Your task to perform on an android device: check battery use Image 0: 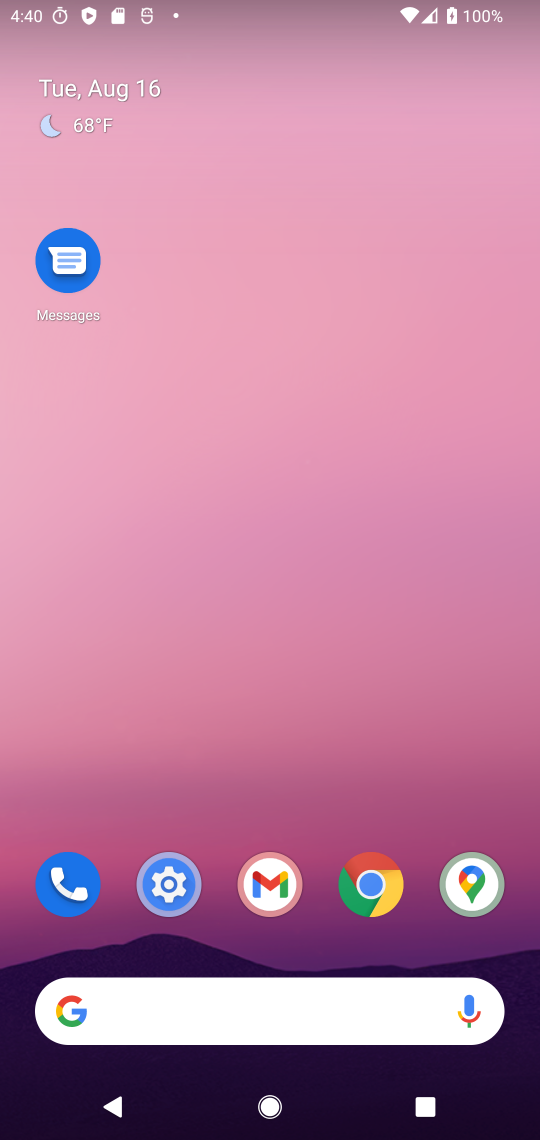
Step 0: click (162, 878)
Your task to perform on an android device: check battery use Image 1: 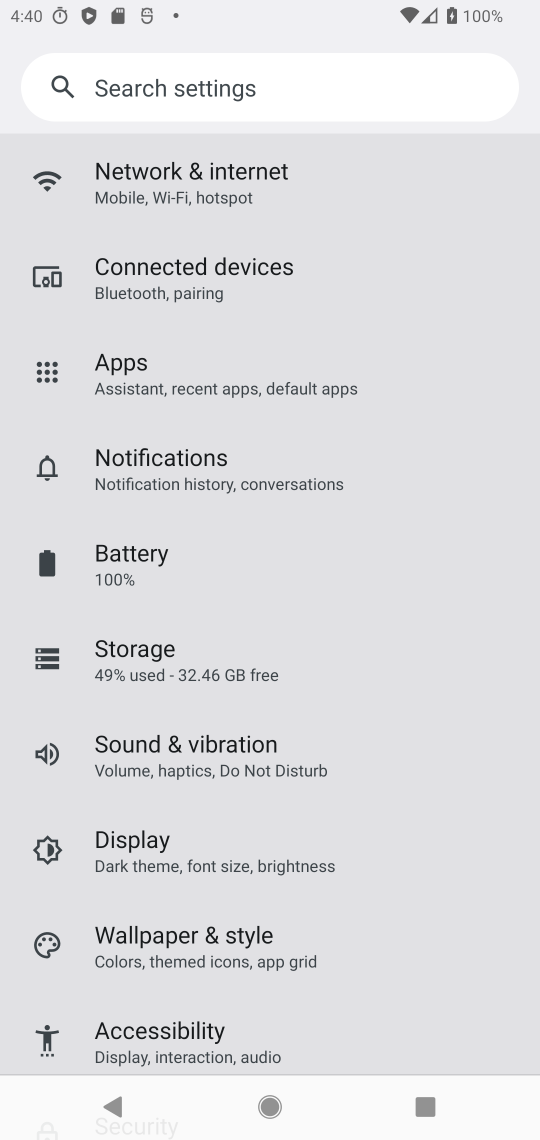
Step 1: drag from (444, 786) to (448, 616)
Your task to perform on an android device: check battery use Image 2: 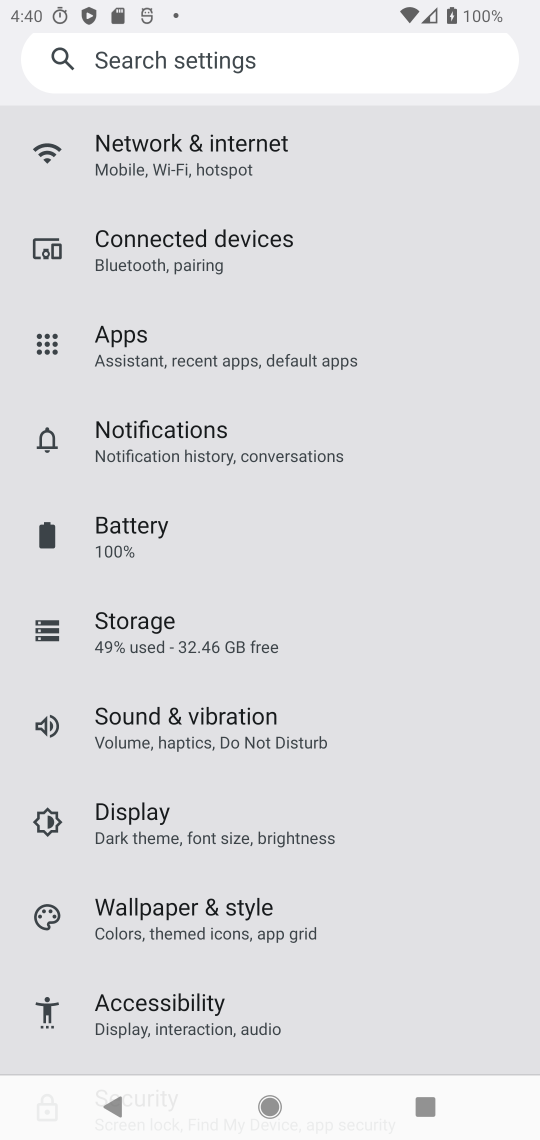
Step 2: drag from (470, 906) to (390, 281)
Your task to perform on an android device: check battery use Image 3: 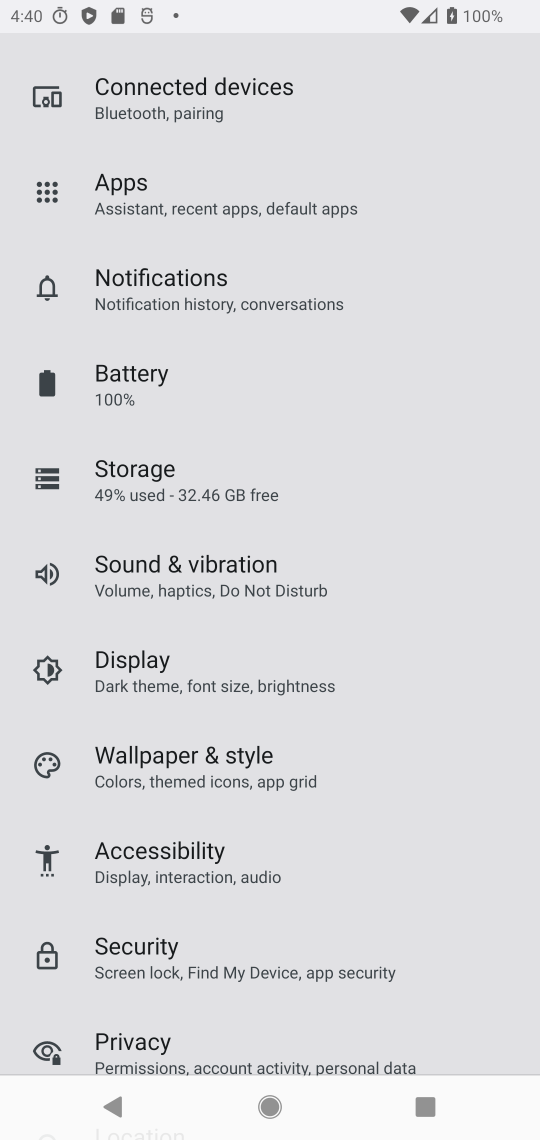
Step 3: click (155, 389)
Your task to perform on an android device: check battery use Image 4: 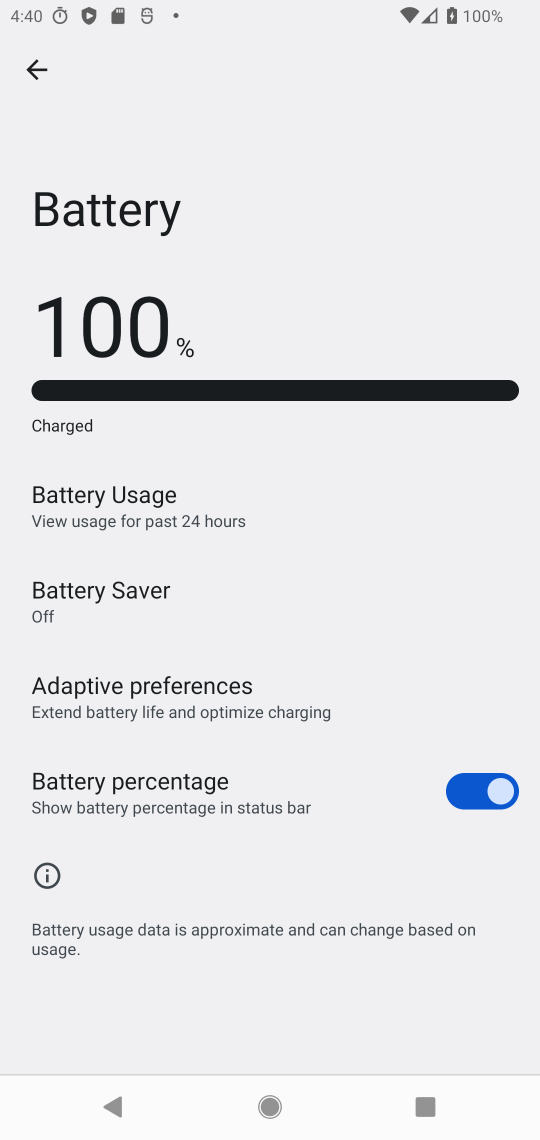
Step 4: task complete